Your task to perform on an android device: What is the recent news? Image 0: 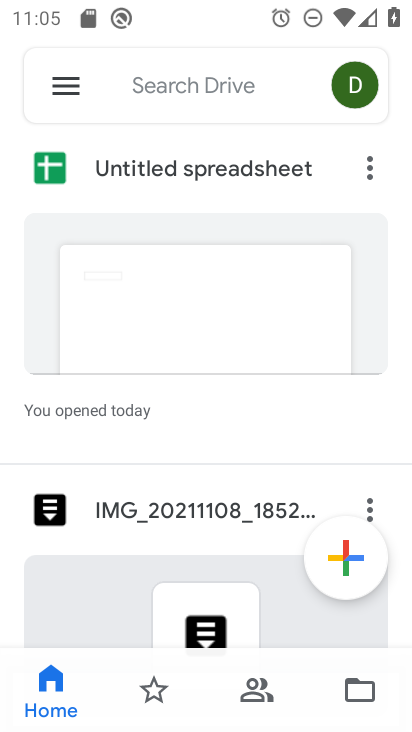
Step 0: press home button
Your task to perform on an android device: What is the recent news? Image 1: 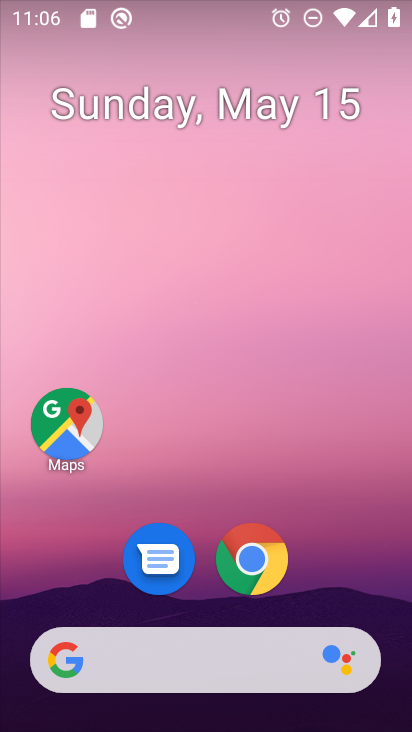
Step 1: drag from (322, 576) to (333, 180)
Your task to perform on an android device: What is the recent news? Image 2: 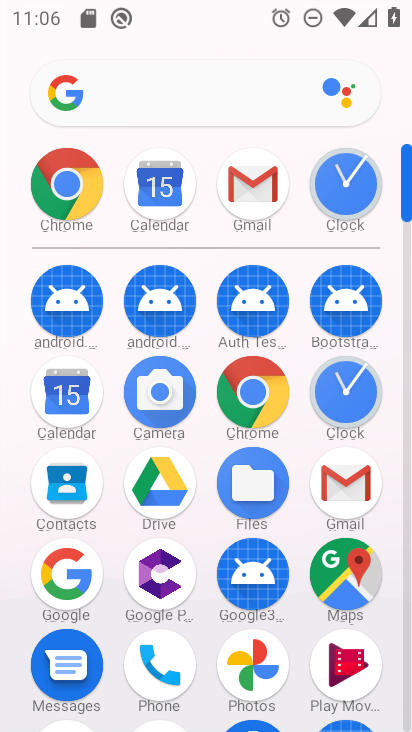
Step 2: click (180, 89)
Your task to perform on an android device: What is the recent news? Image 3: 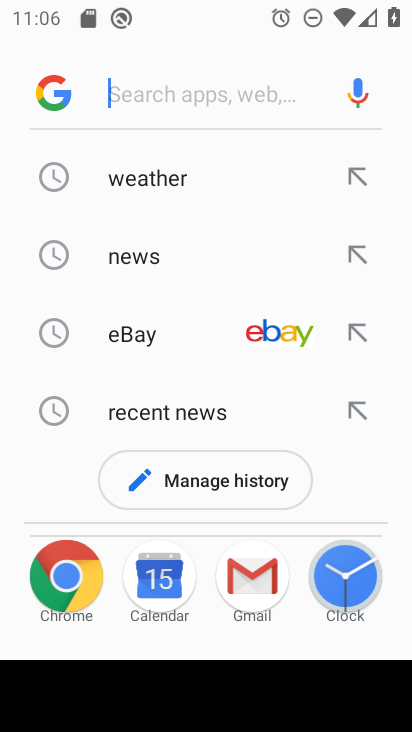
Step 3: click (150, 251)
Your task to perform on an android device: What is the recent news? Image 4: 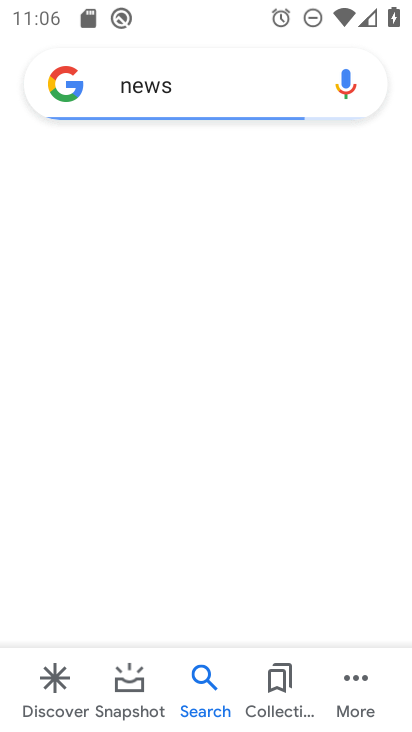
Step 4: task complete